Your task to perform on an android device: Clear the cart on newegg. Search for "beats solo 3" on newegg, select the first entry, add it to the cart, then select checkout. Image 0: 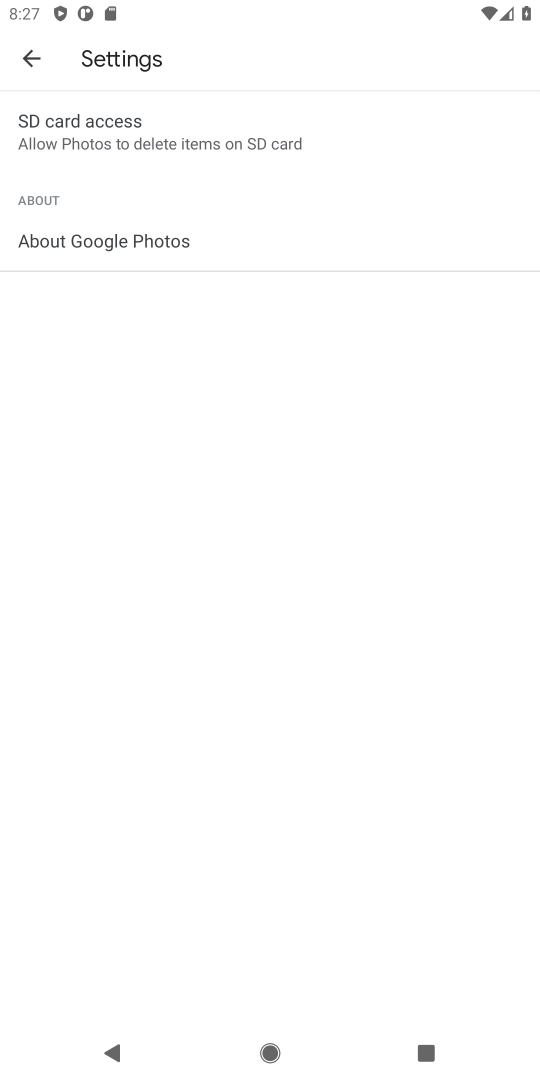
Step 0: press home button
Your task to perform on an android device: Clear the cart on newegg. Search for "beats solo 3" on newegg, select the first entry, add it to the cart, then select checkout. Image 1: 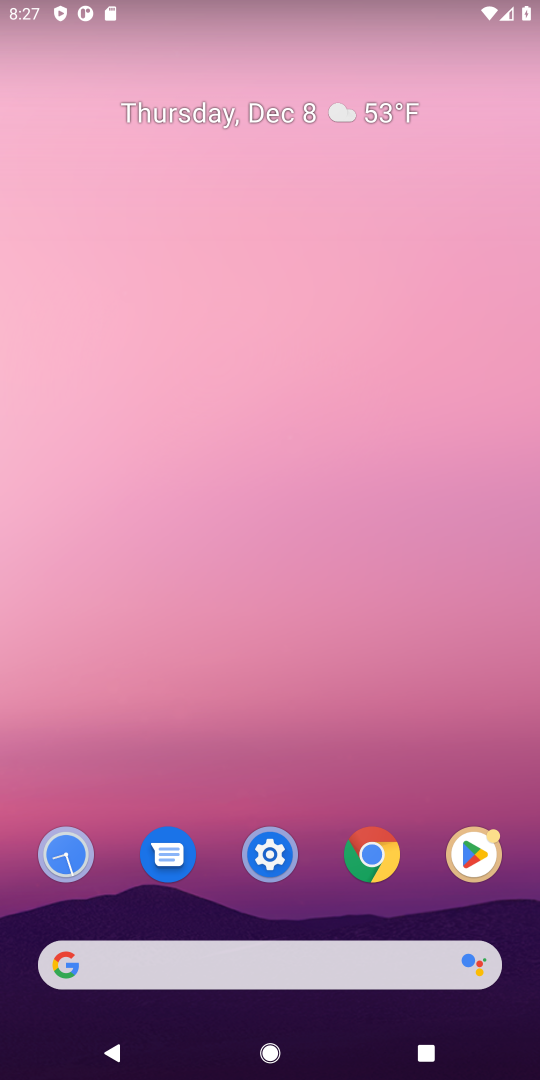
Step 1: click (94, 967)
Your task to perform on an android device: Clear the cart on newegg. Search for "beats solo 3" on newegg, select the first entry, add it to the cart, then select checkout. Image 2: 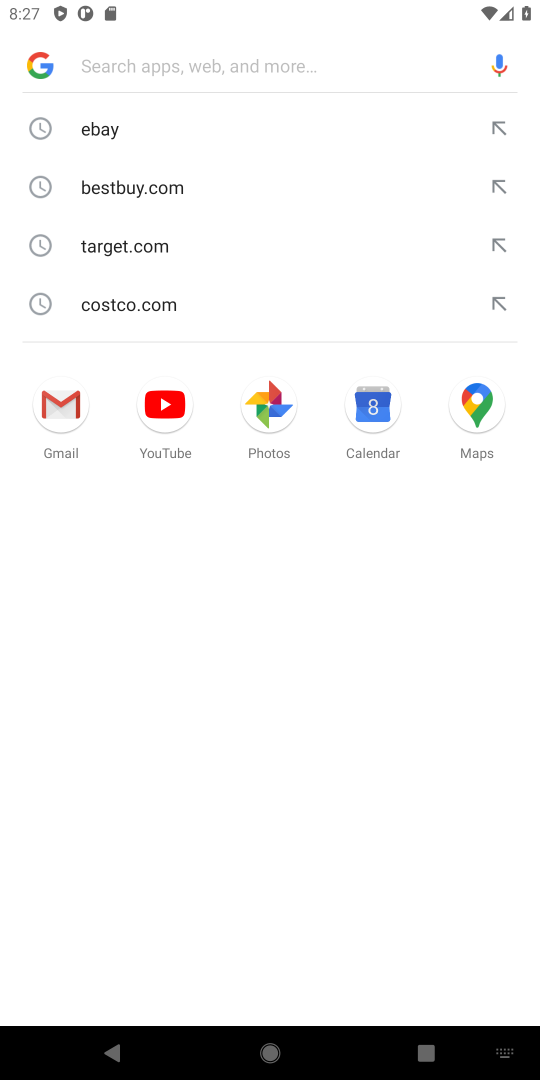
Step 2: press enter
Your task to perform on an android device: Clear the cart on newegg. Search for "beats solo 3" on newegg, select the first entry, add it to the cart, then select checkout. Image 3: 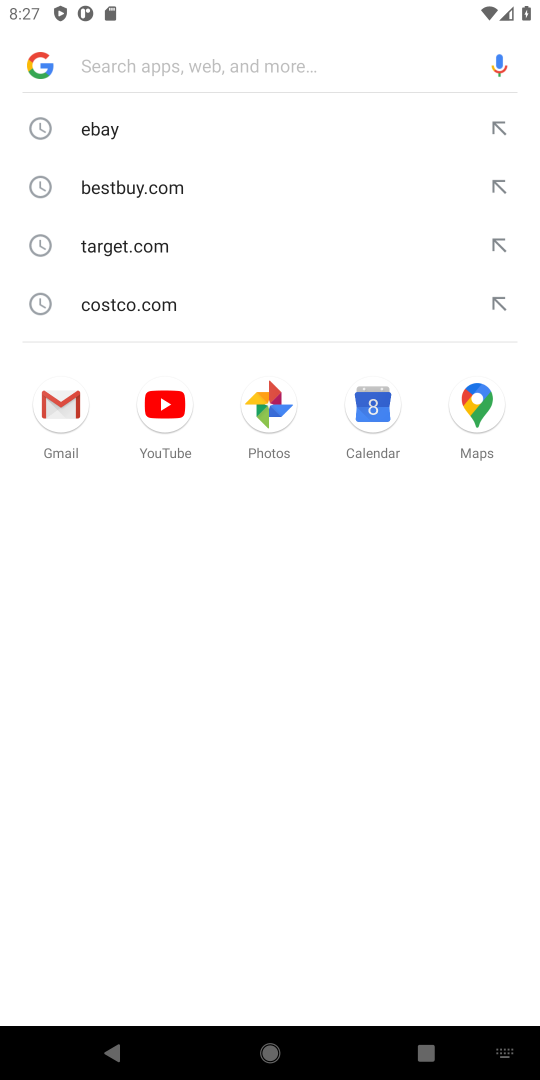
Step 3: type "newegg"
Your task to perform on an android device: Clear the cart on newegg. Search for "beats solo 3" on newegg, select the first entry, add it to the cart, then select checkout. Image 4: 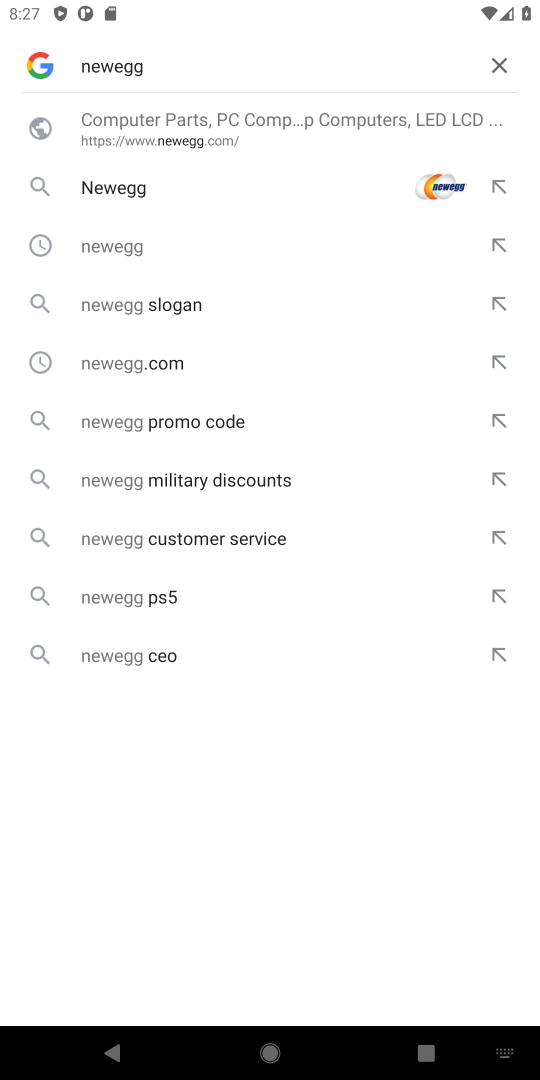
Step 4: press enter
Your task to perform on an android device: Clear the cart on newegg. Search for "beats solo 3" on newegg, select the first entry, add it to the cart, then select checkout. Image 5: 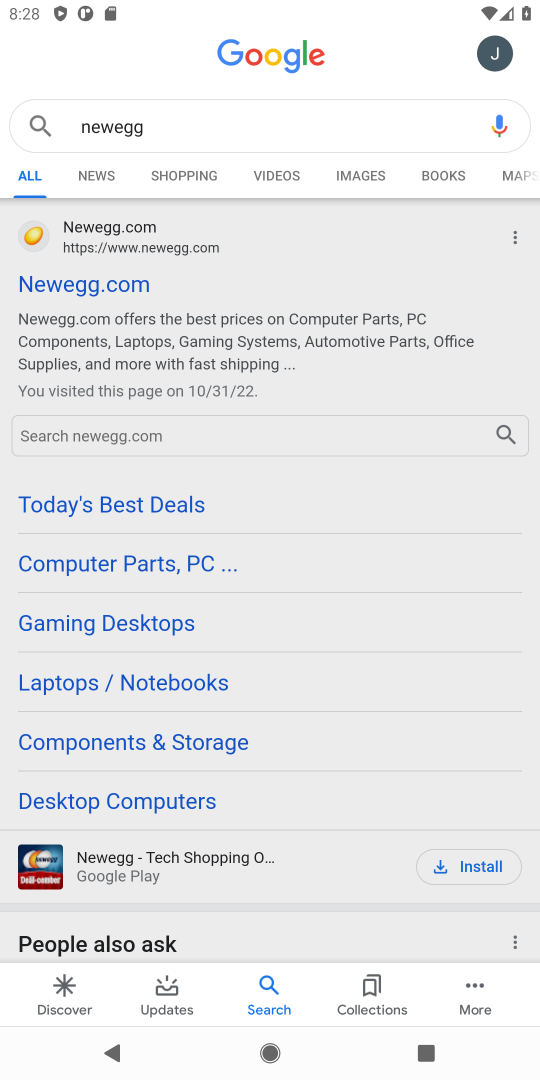
Step 5: click (83, 281)
Your task to perform on an android device: Clear the cart on newegg. Search for "beats solo 3" on newegg, select the first entry, add it to the cart, then select checkout. Image 6: 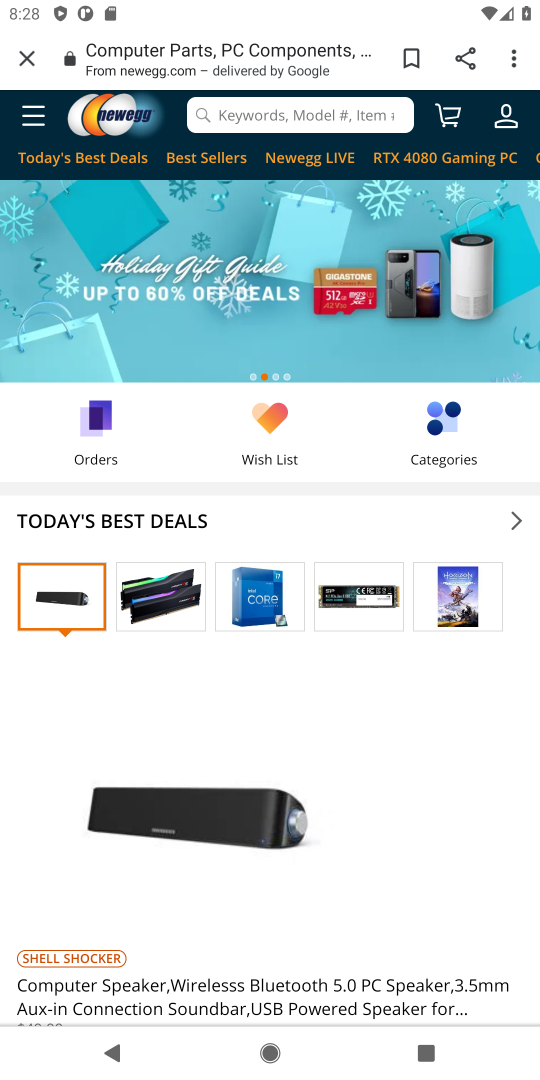
Step 6: click (450, 119)
Your task to perform on an android device: Clear the cart on newegg. Search for "beats solo 3" on newegg, select the first entry, add it to the cart, then select checkout. Image 7: 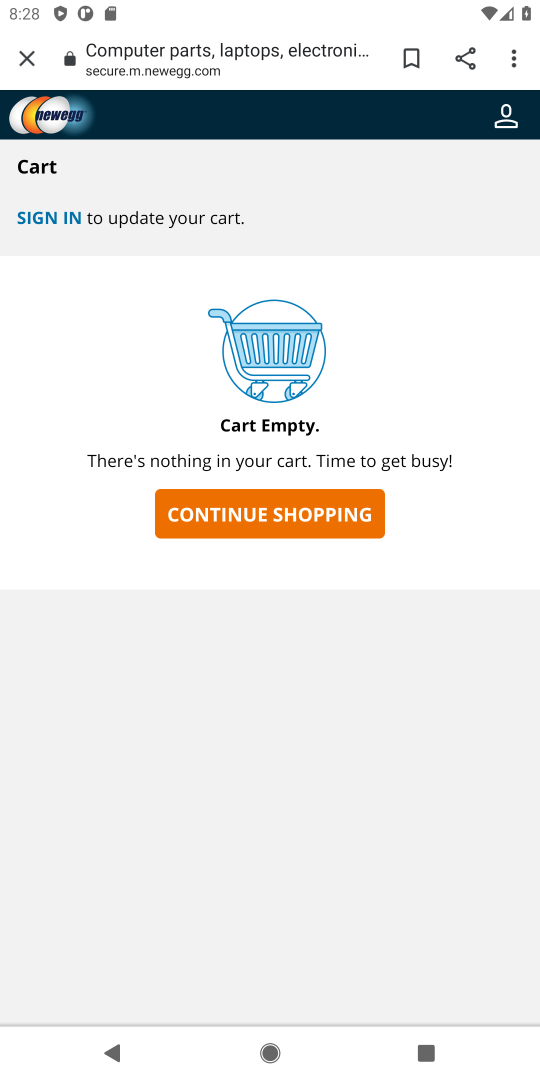
Step 7: press back button
Your task to perform on an android device: Clear the cart on newegg. Search for "beats solo 3" on newegg, select the first entry, add it to the cart, then select checkout. Image 8: 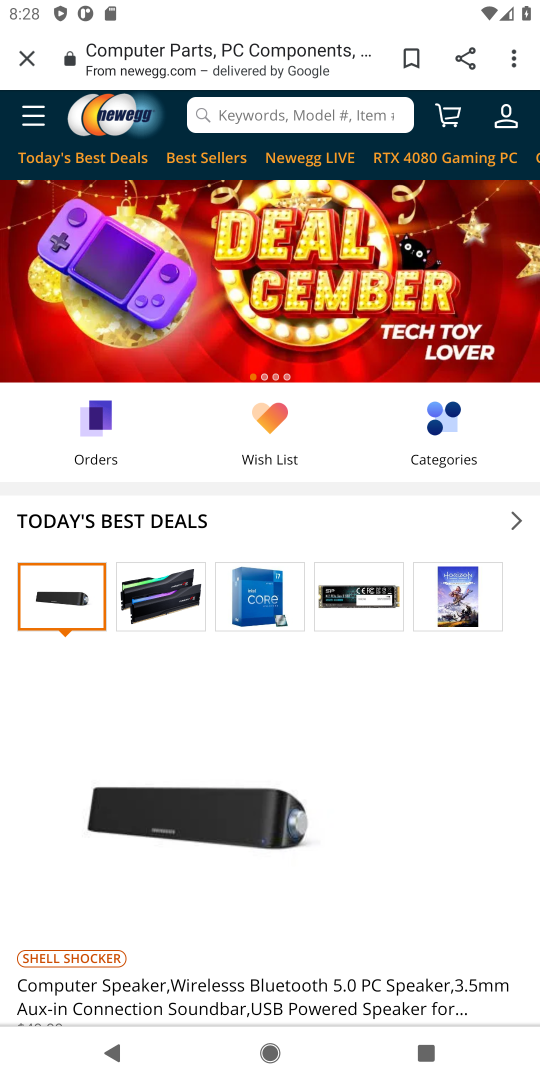
Step 8: click (222, 113)
Your task to perform on an android device: Clear the cart on newegg. Search for "beats solo 3" on newegg, select the first entry, add it to the cart, then select checkout. Image 9: 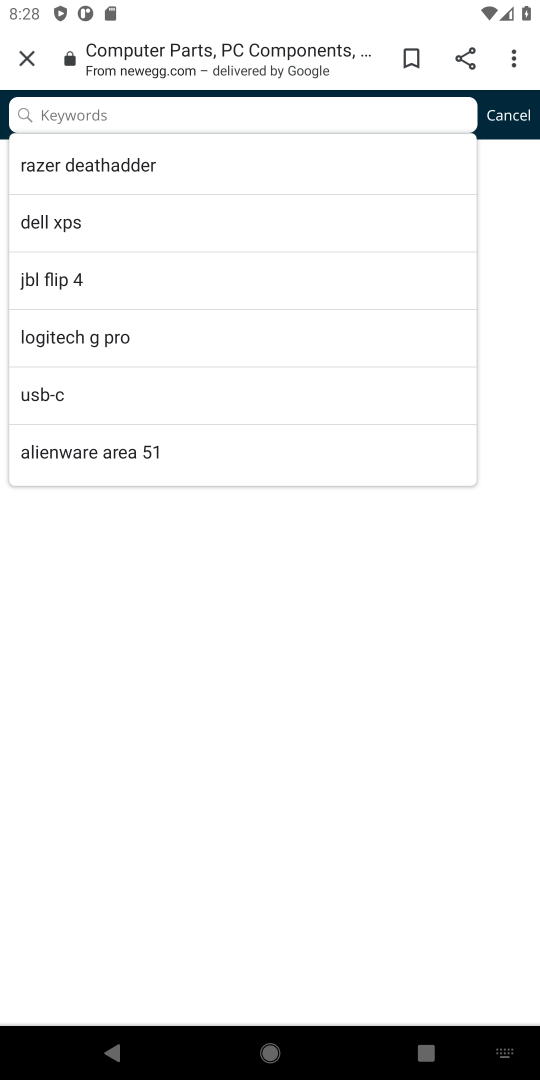
Step 9: type "beats solo 3"
Your task to perform on an android device: Clear the cart on newegg. Search for "beats solo 3" on newegg, select the first entry, add it to the cart, then select checkout. Image 10: 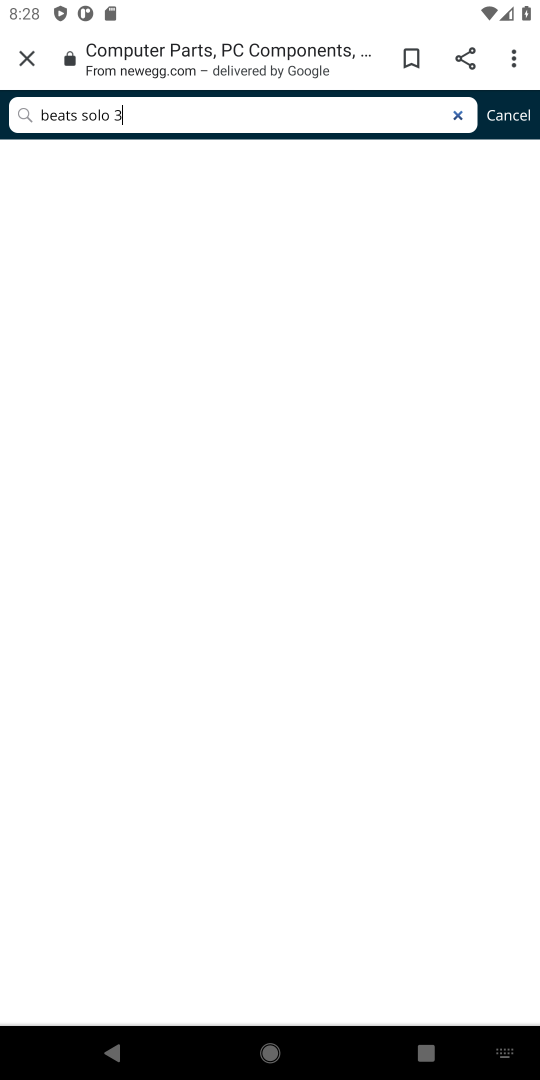
Step 10: press enter
Your task to perform on an android device: Clear the cart on newegg. Search for "beats solo 3" on newegg, select the first entry, add it to the cart, then select checkout. Image 11: 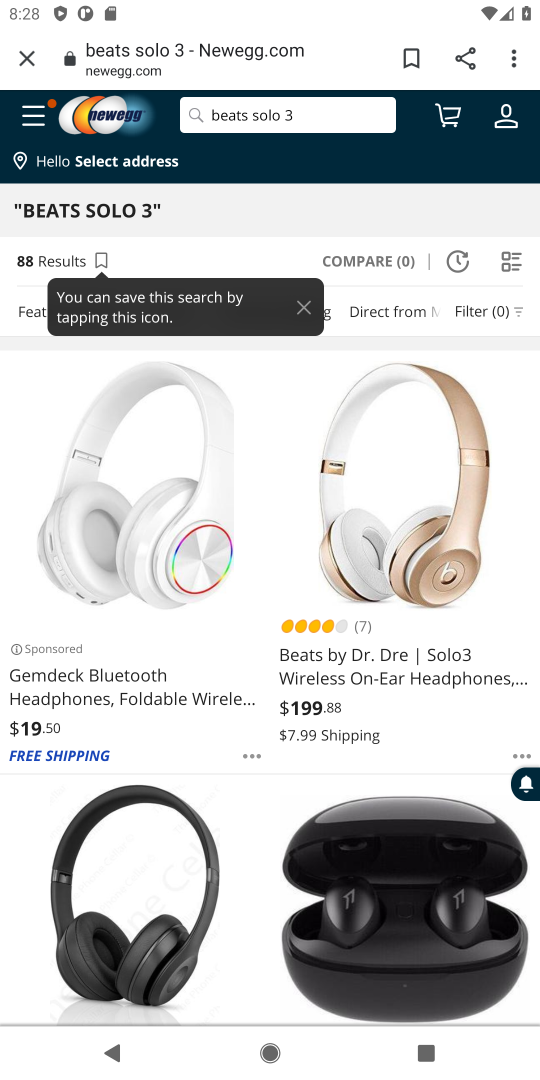
Step 11: drag from (323, 864) to (309, 428)
Your task to perform on an android device: Clear the cart on newegg. Search for "beats solo 3" on newegg, select the first entry, add it to the cart, then select checkout. Image 12: 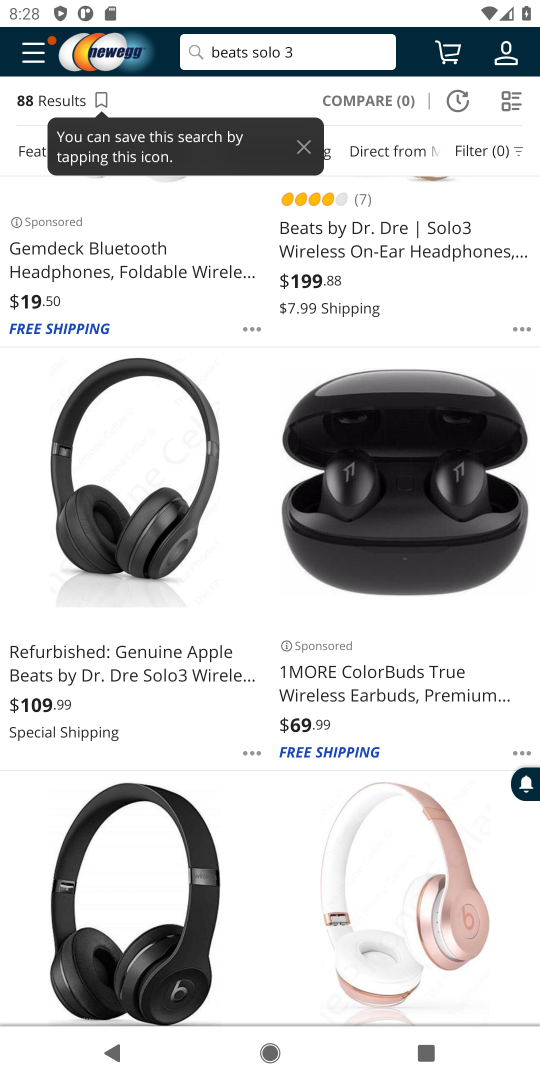
Step 12: drag from (285, 842) to (255, 421)
Your task to perform on an android device: Clear the cart on newegg. Search for "beats solo 3" on newegg, select the first entry, add it to the cart, then select checkout. Image 13: 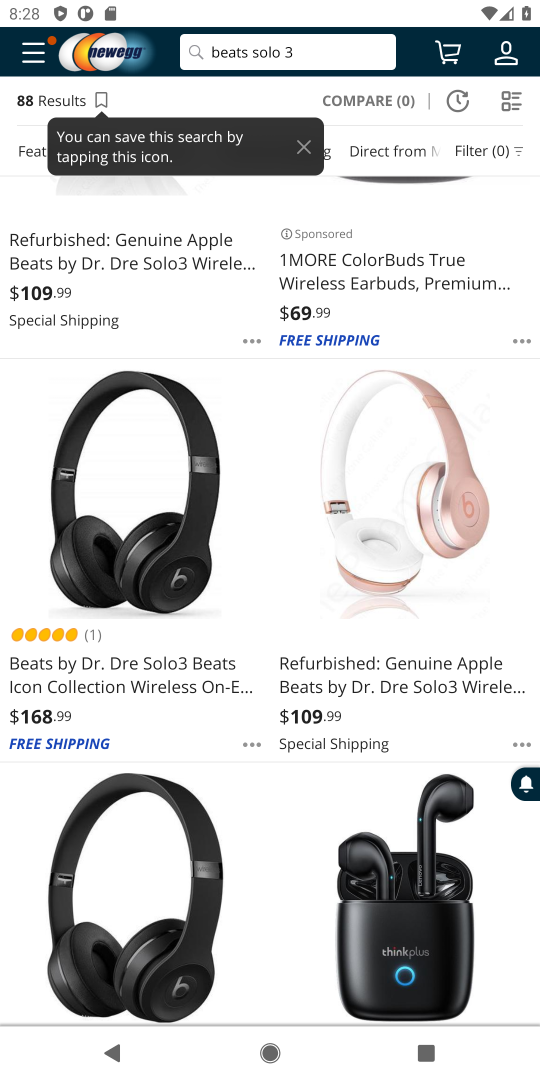
Step 13: drag from (281, 869) to (280, 516)
Your task to perform on an android device: Clear the cart on newegg. Search for "beats solo 3" on newegg, select the first entry, add it to the cart, then select checkout. Image 14: 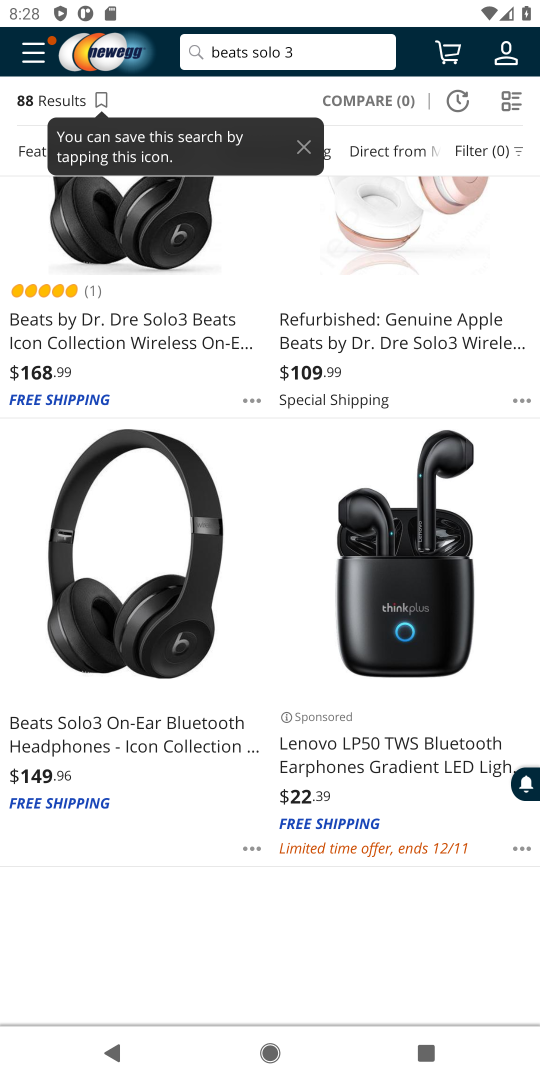
Step 14: click (110, 312)
Your task to perform on an android device: Clear the cart on newegg. Search for "beats solo 3" on newegg, select the first entry, add it to the cart, then select checkout. Image 15: 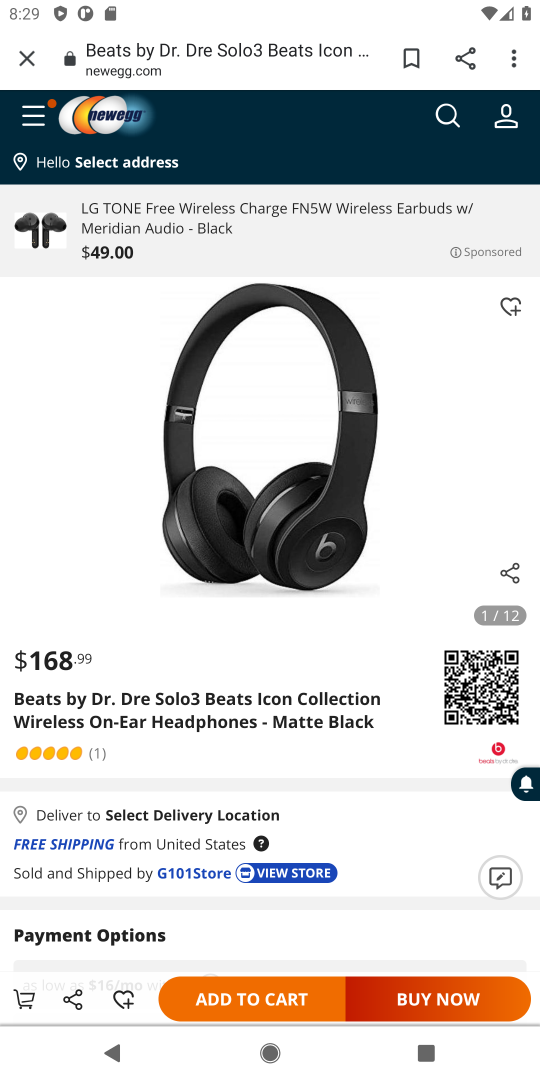
Step 15: click (216, 993)
Your task to perform on an android device: Clear the cart on newegg. Search for "beats solo 3" on newegg, select the first entry, add it to the cart, then select checkout. Image 16: 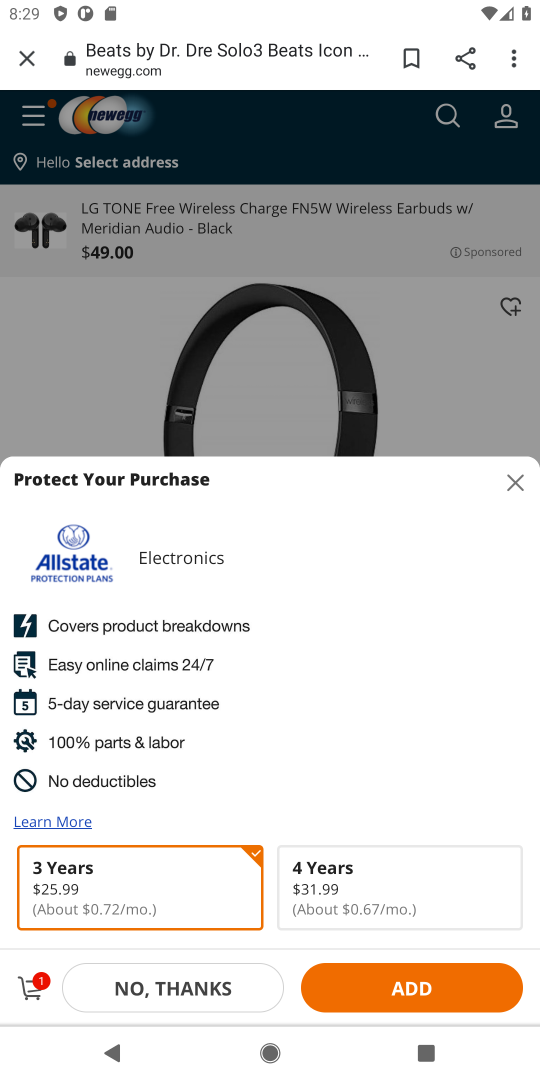
Step 16: click (157, 988)
Your task to perform on an android device: Clear the cart on newegg. Search for "beats solo 3" on newegg, select the first entry, add it to the cart, then select checkout. Image 17: 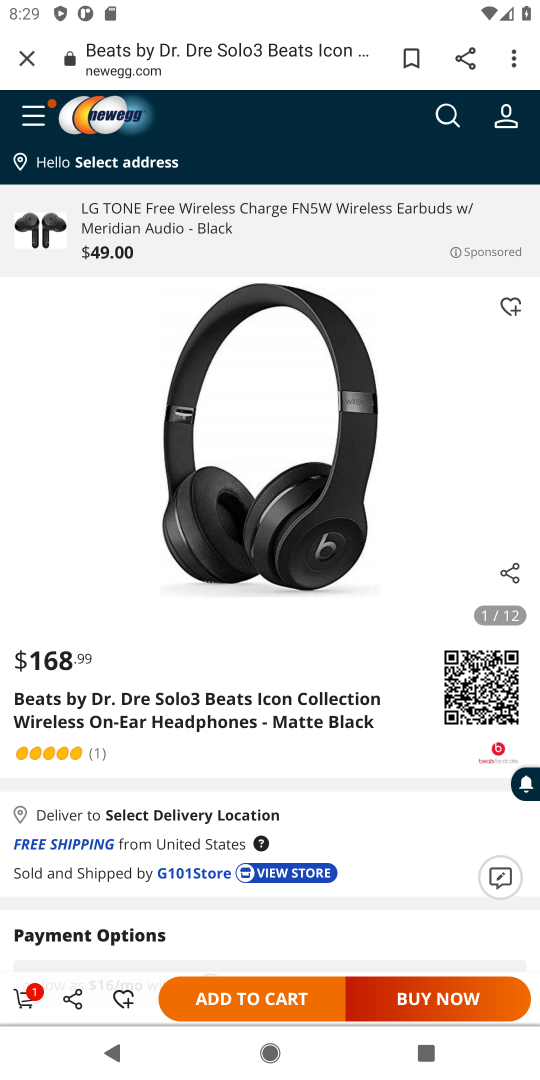
Step 17: click (27, 998)
Your task to perform on an android device: Clear the cart on newegg. Search for "beats solo 3" on newegg, select the first entry, add it to the cart, then select checkout. Image 18: 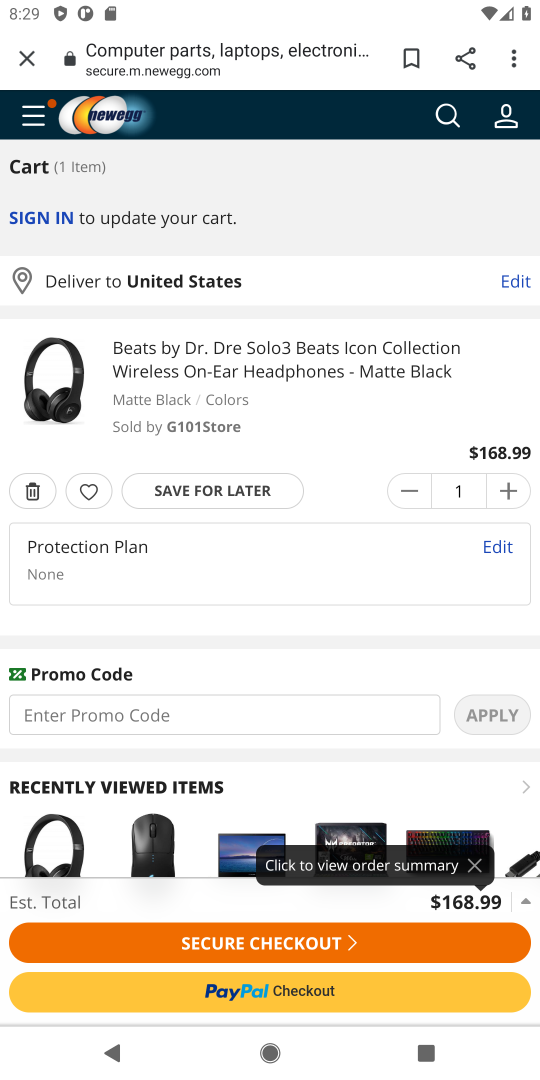
Step 18: click (185, 936)
Your task to perform on an android device: Clear the cart on newegg. Search for "beats solo 3" on newegg, select the first entry, add it to the cart, then select checkout. Image 19: 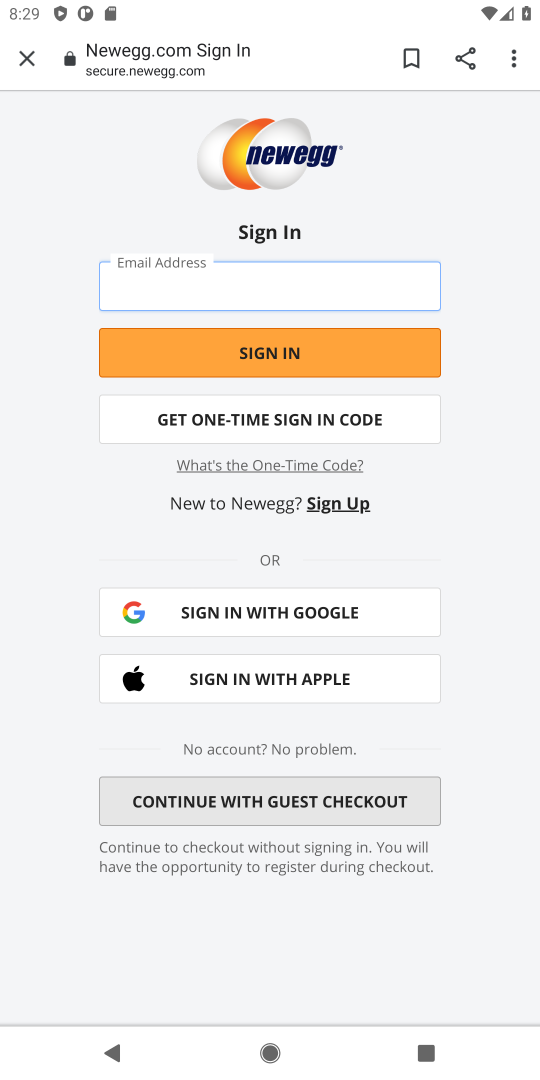
Step 19: task complete